Your task to perform on an android device: toggle pop-ups in chrome Image 0: 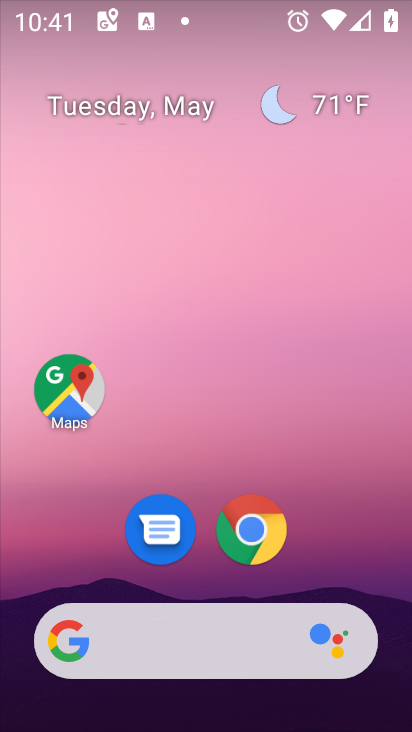
Step 0: drag from (257, 618) to (280, 208)
Your task to perform on an android device: toggle pop-ups in chrome Image 1: 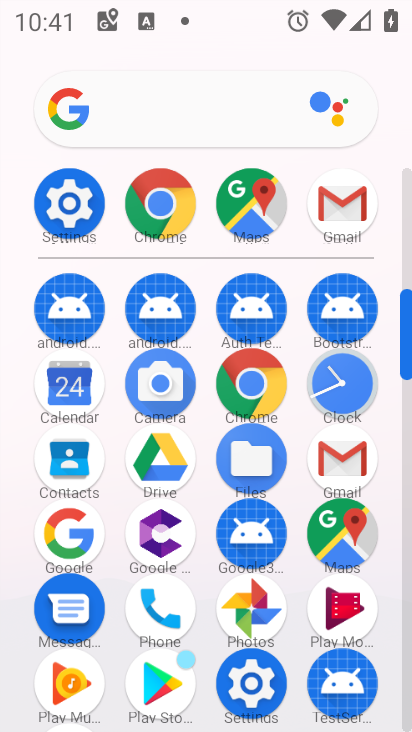
Step 1: click (257, 378)
Your task to perform on an android device: toggle pop-ups in chrome Image 2: 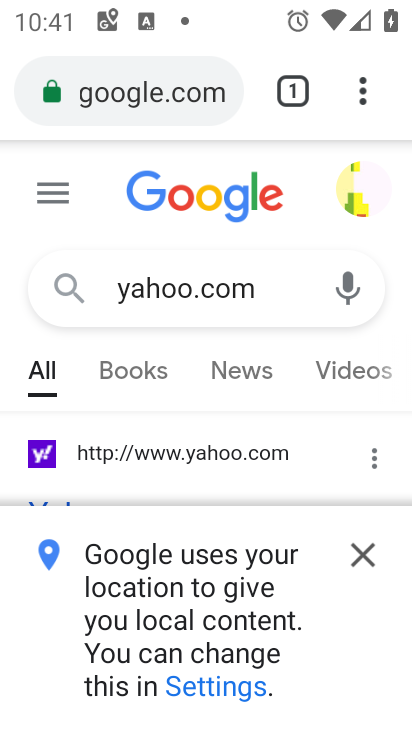
Step 2: click (366, 83)
Your task to perform on an android device: toggle pop-ups in chrome Image 3: 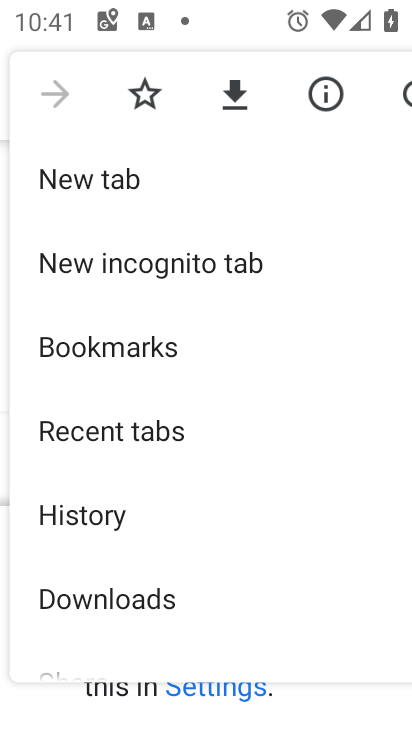
Step 3: drag from (287, 487) to (286, 379)
Your task to perform on an android device: toggle pop-ups in chrome Image 4: 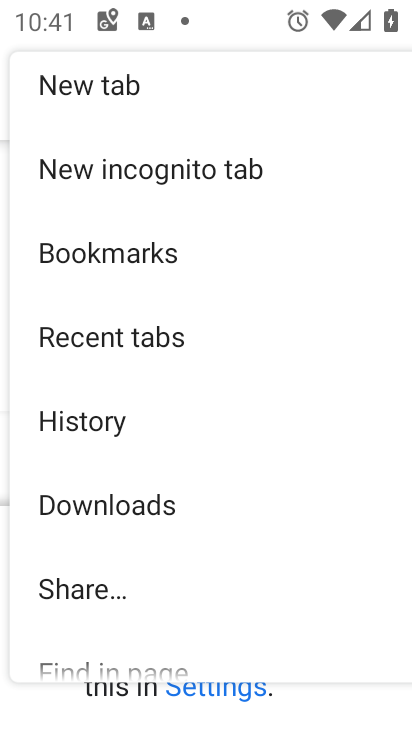
Step 4: drag from (263, 540) to (255, 382)
Your task to perform on an android device: toggle pop-ups in chrome Image 5: 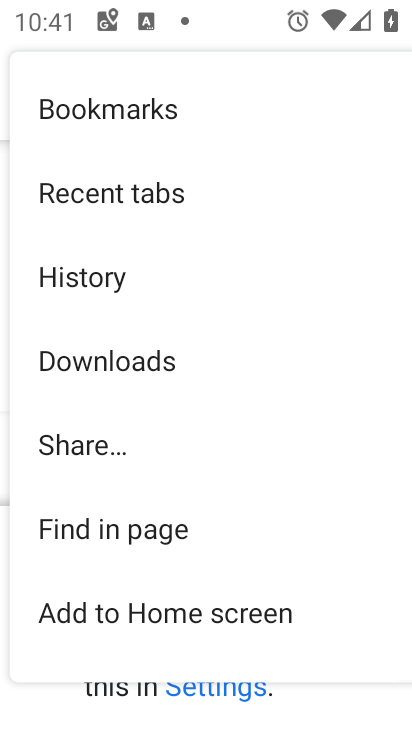
Step 5: drag from (265, 547) to (266, 387)
Your task to perform on an android device: toggle pop-ups in chrome Image 6: 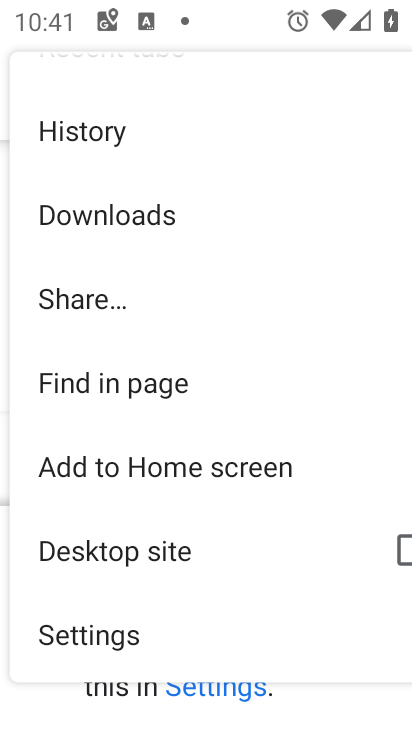
Step 6: drag from (270, 544) to (267, 411)
Your task to perform on an android device: toggle pop-ups in chrome Image 7: 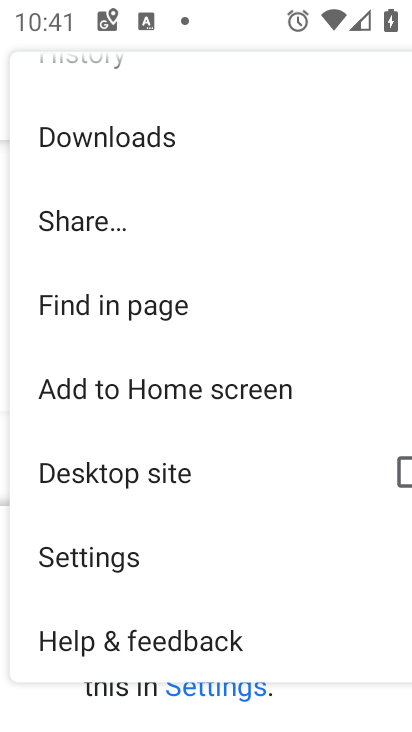
Step 7: click (159, 559)
Your task to perform on an android device: toggle pop-ups in chrome Image 8: 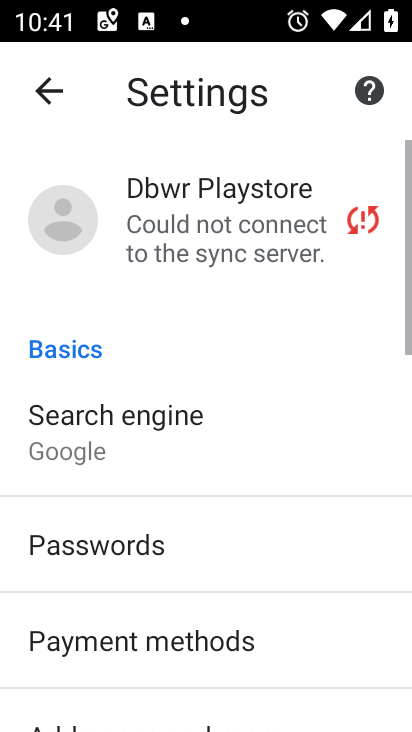
Step 8: drag from (159, 559) to (157, 376)
Your task to perform on an android device: toggle pop-ups in chrome Image 9: 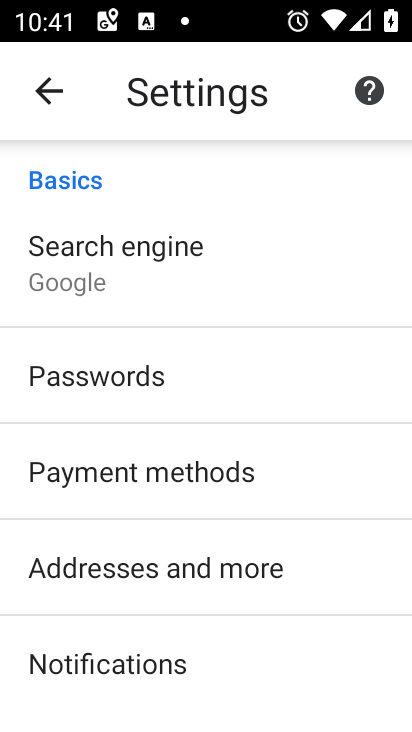
Step 9: drag from (201, 562) to (202, 409)
Your task to perform on an android device: toggle pop-ups in chrome Image 10: 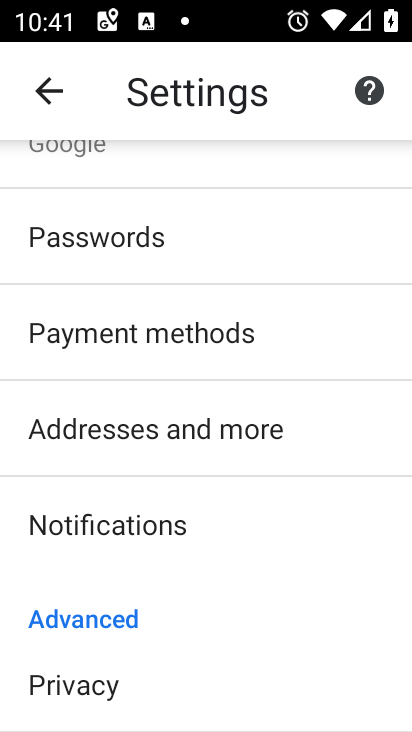
Step 10: drag from (219, 577) to (206, 356)
Your task to perform on an android device: toggle pop-ups in chrome Image 11: 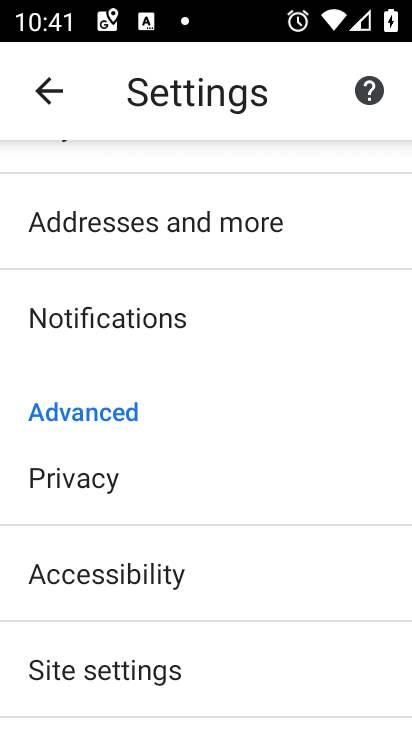
Step 11: click (167, 684)
Your task to perform on an android device: toggle pop-ups in chrome Image 12: 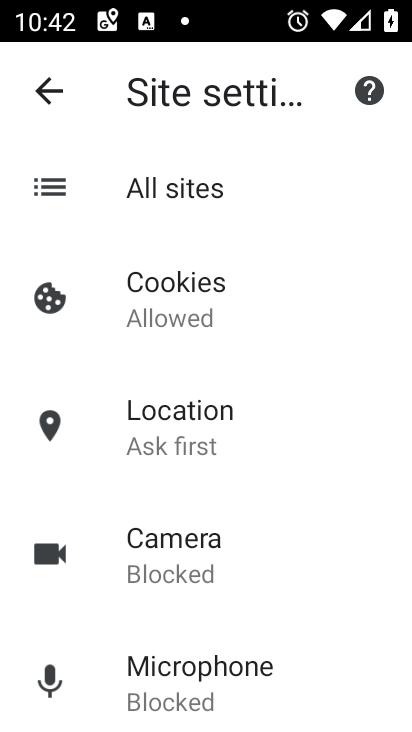
Step 12: drag from (167, 686) to (192, 437)
Your task to perform on an android device: toggle pop-ups in chrome Image 13: 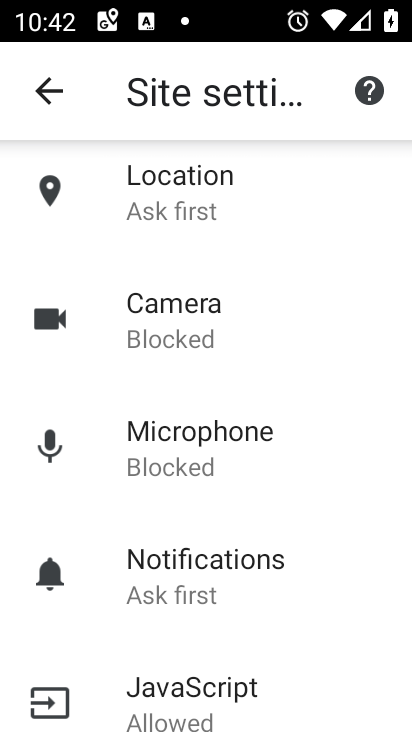
Step 13: drag from (208, 627) to (217, 417)
Your task to perform on an android device: toggle pop-ups in chrome Image 14: 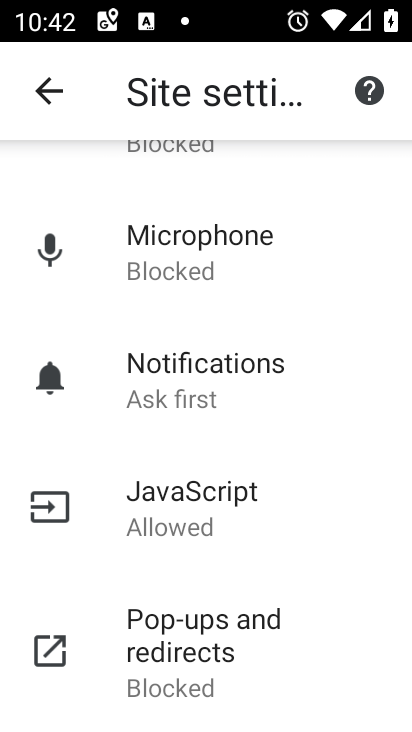
Step 14: drag from (227, 529) to (244, 382)
Your task to perform on an android device: toggle pop-ups in chrome Image 15: 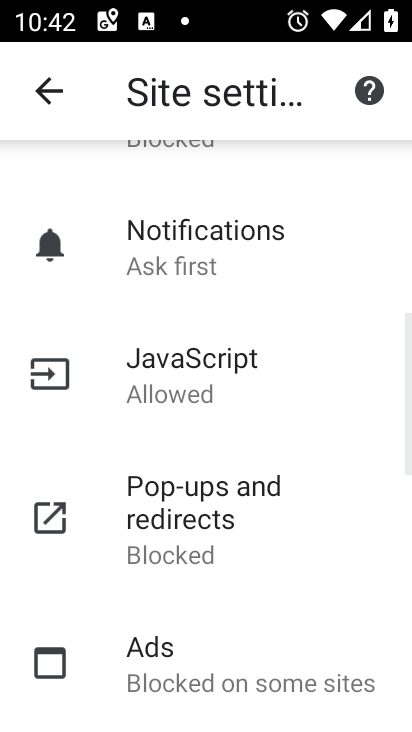
Step 15: click (238, 512)
Your task to perform on an android device: toggle pop-ups in chrome Image 16: 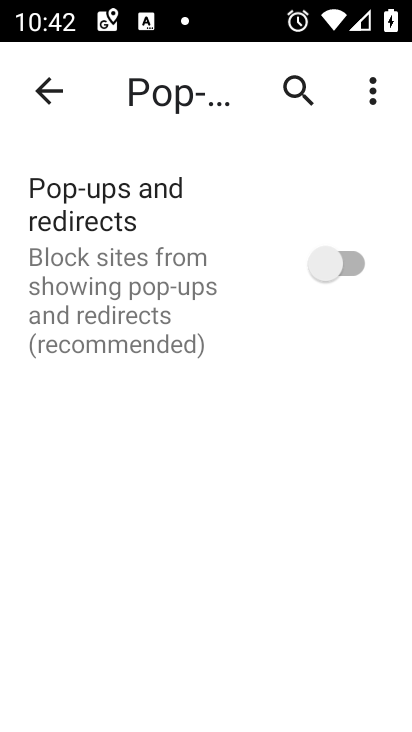
Step 16: click (349, 261)
Your task to perform on an android device: toggle pop-ups in chrome Image 17: 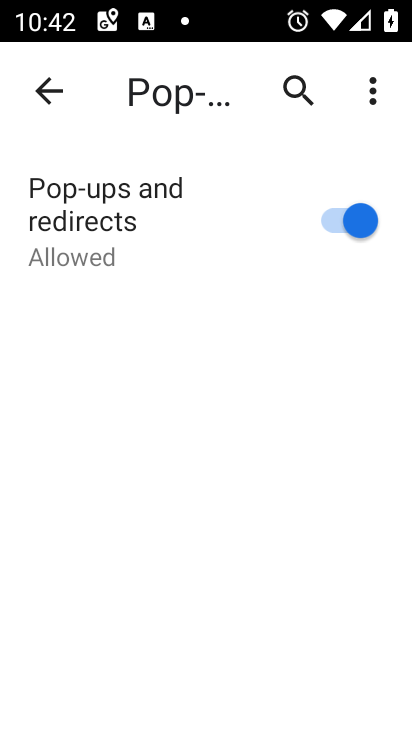
Step 17: task complete